Your task to perform on an android device: Open the calendar app, open the side menu, and click the "Day" option Image 0: 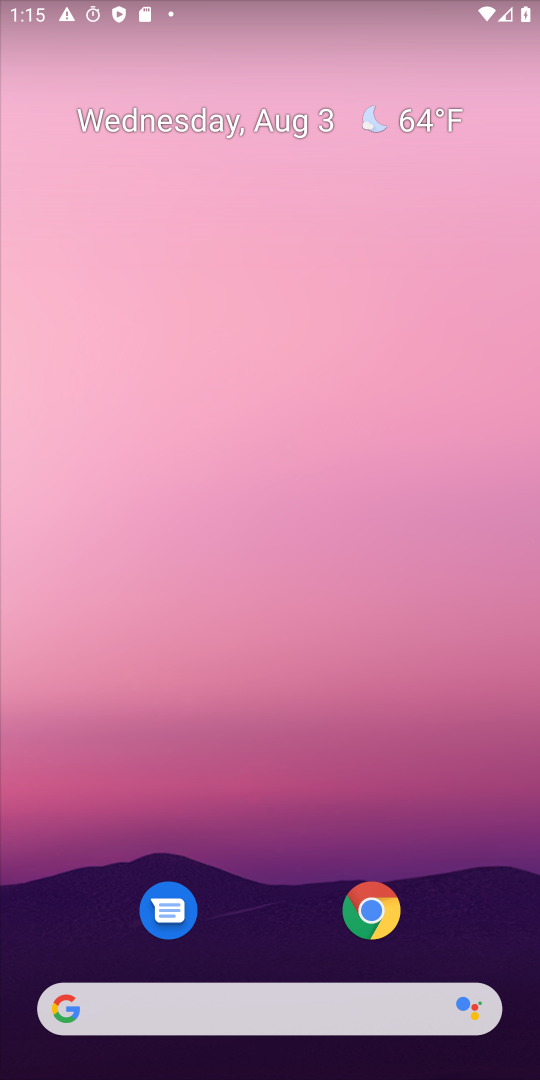
Step 0: drag from (316, 481) to (370, 5)
Your task to perform on an android device: Open the calendar app, open the side menu, and click the "Day" option Image 1: 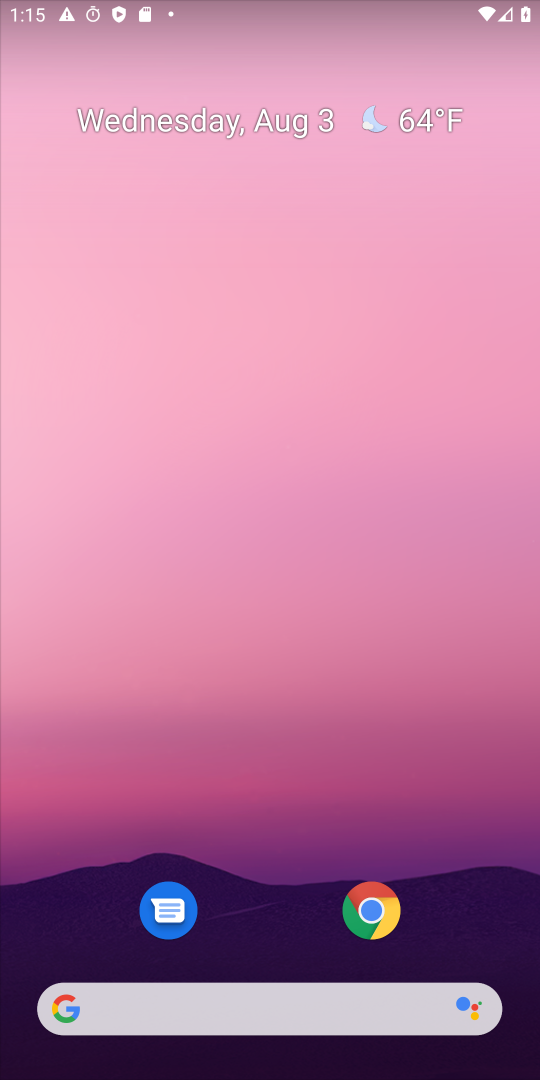
Step 1: drag from (251, 1020) to (331, 59)
Your task to perform on an android device: Open the calendar app, open the side menu, and click the "Day" option Image 2: 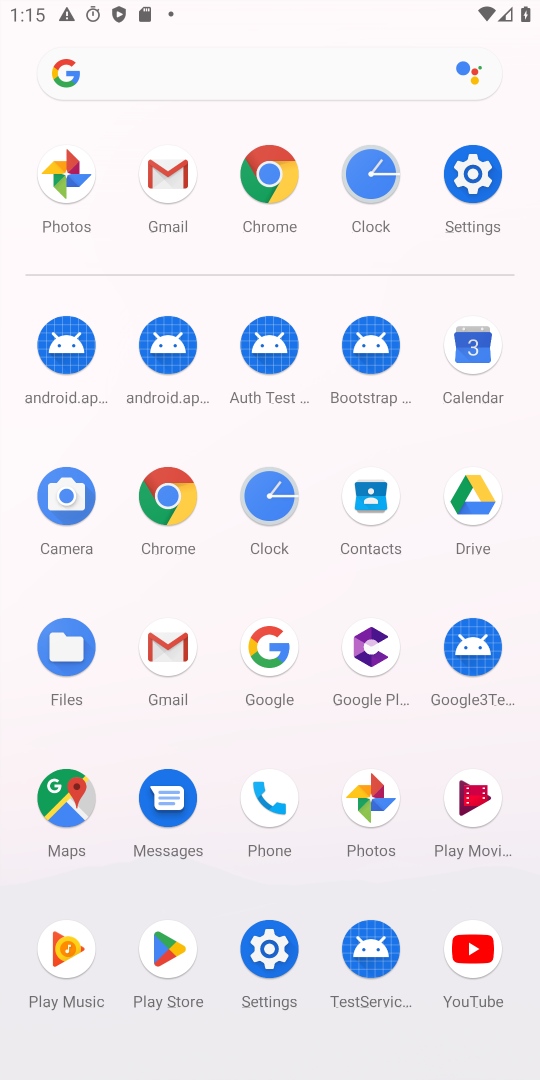
Step 2: click (468, 342)
Your task to perform on an android device: Open the calendar app, open the side menu, and click the "Day" option Image 3: 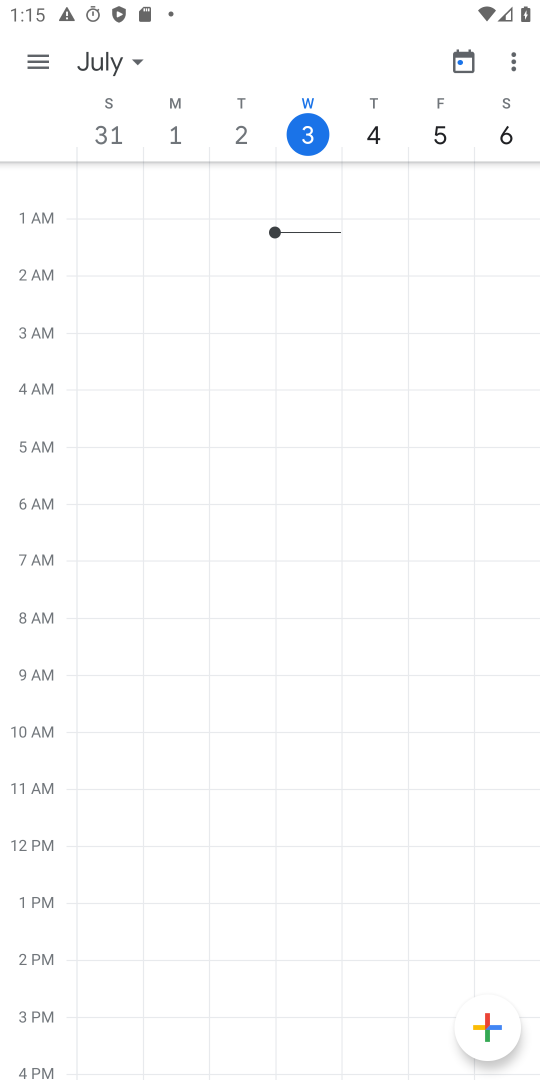
Step 3: click (30, 62)
Your task to perform on an android device: Open the calendar app, open the side menu, and click the "Day" option Image 4: 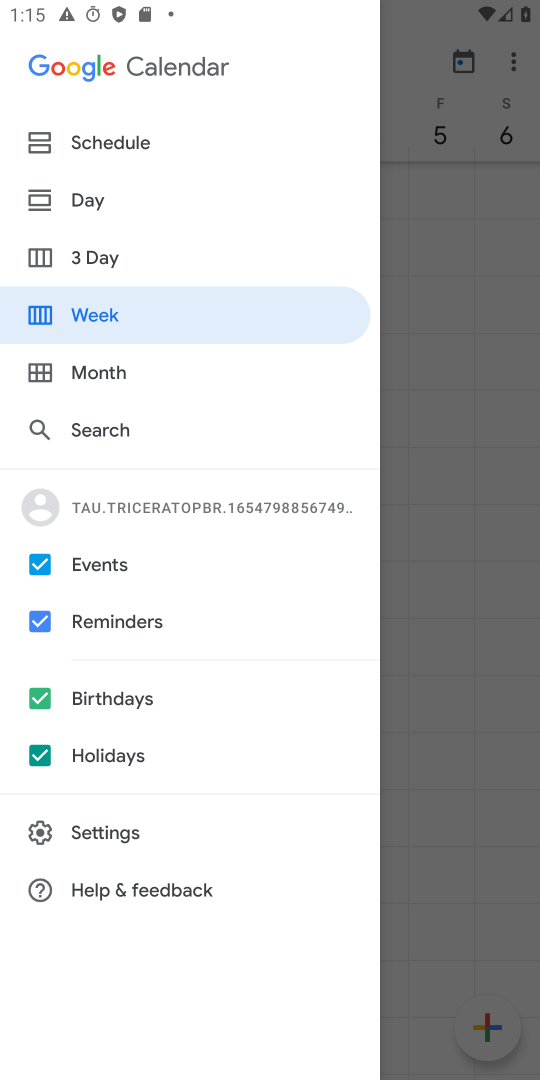
Step 4: click (117, 198)
Your task to perform on an android device: Open the calendar app, open the side menu, and click the "Day" option Image 5: 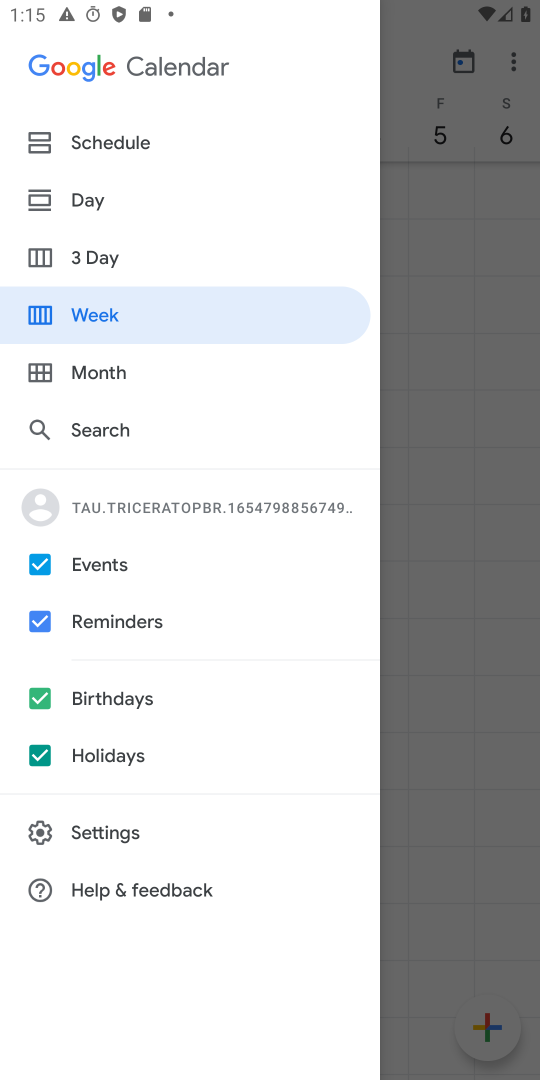
Step 5: click (118, 195)
Your task to perform on an android device: Open the calendar app, open the side menu, and click the "Day" option Image 6: 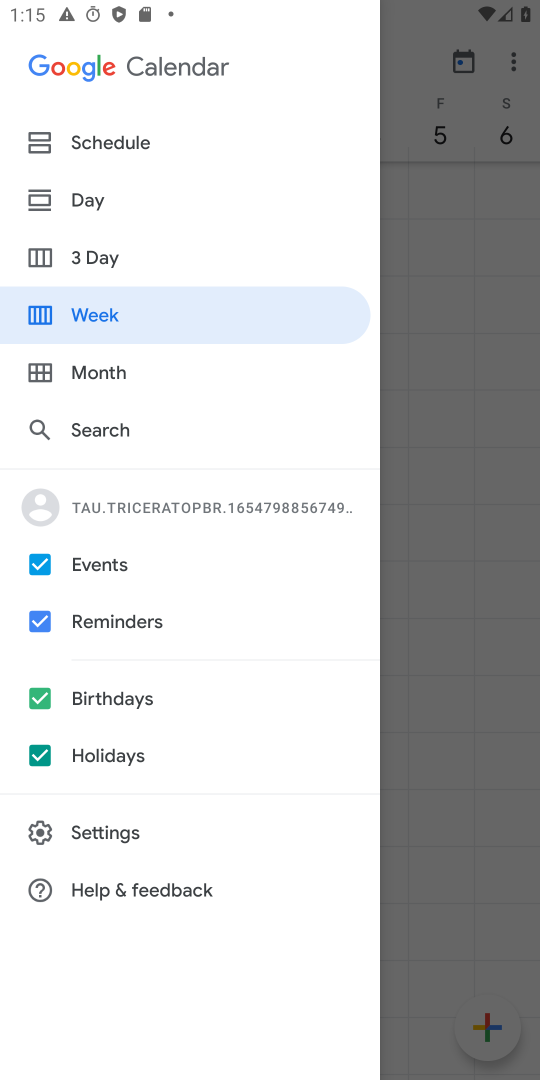
Step 6: click (116, 196)
Your task to perform on an android device: Open the calendar app, open the side menu, and click the "Day" option Image 7: 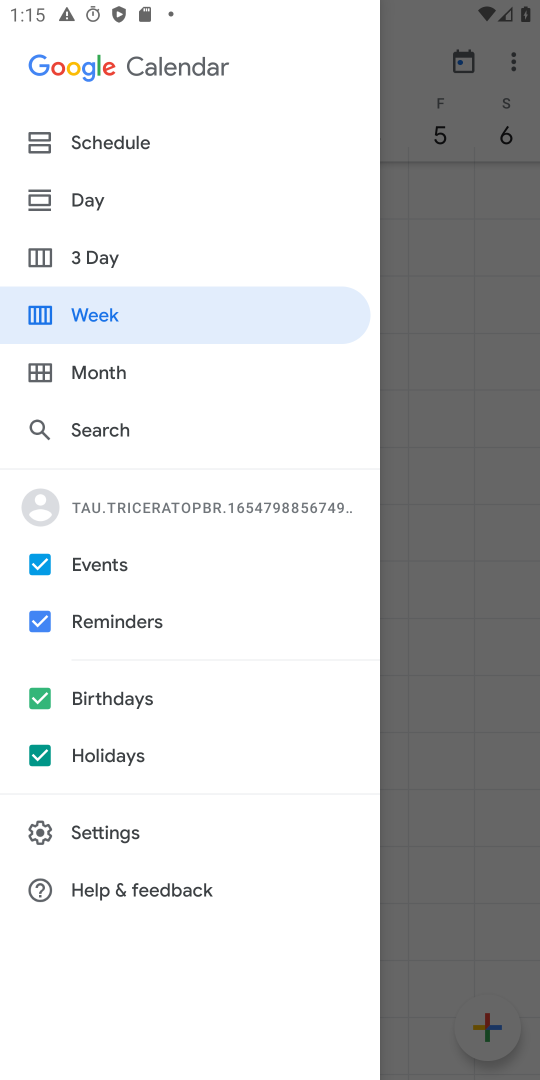
Step 7: click (116, 196)
Your task to perform on an android device: Open the calendar app, open the side menu, and click the "Day" option Image 8: 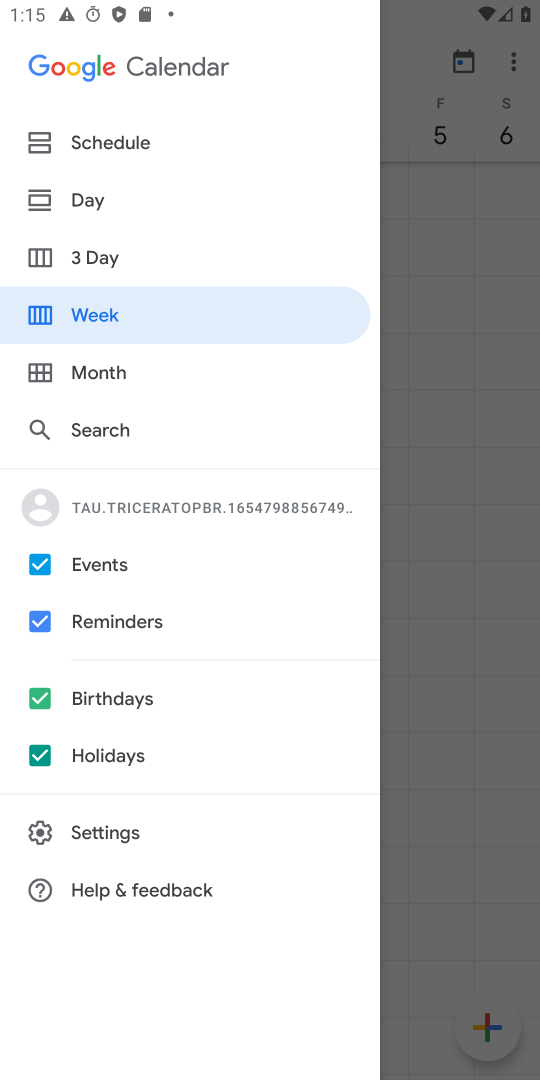
Step 8: click (98, 206)
Your task to perform on an android device: Open the calendar app, open the side menu, and click the "Day" option Image 9: 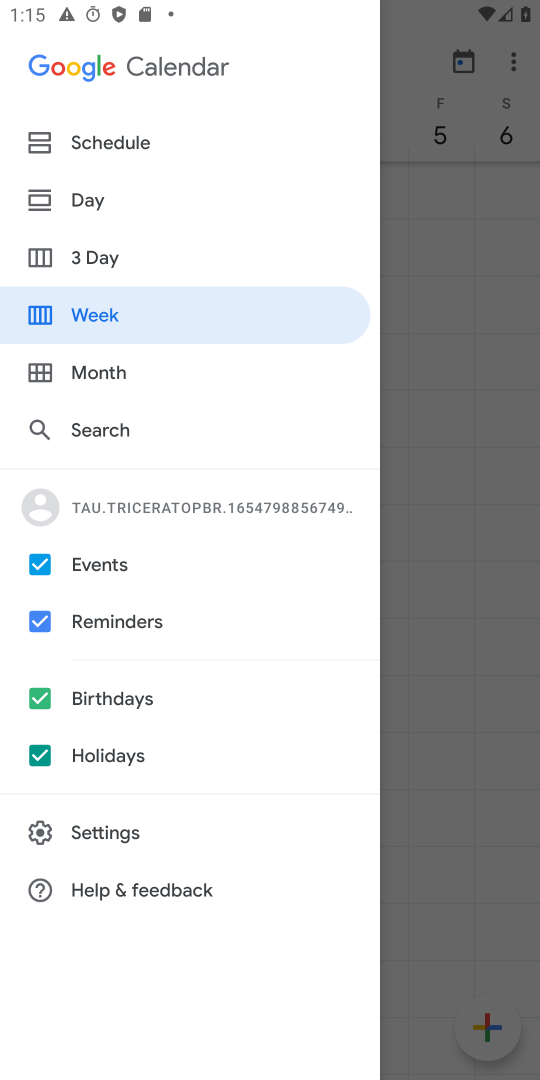
Step 9: click (101, 206)
Your task to perform on an android device: Open the calendar app, open the side menu, and click the "Day" option Image 10: 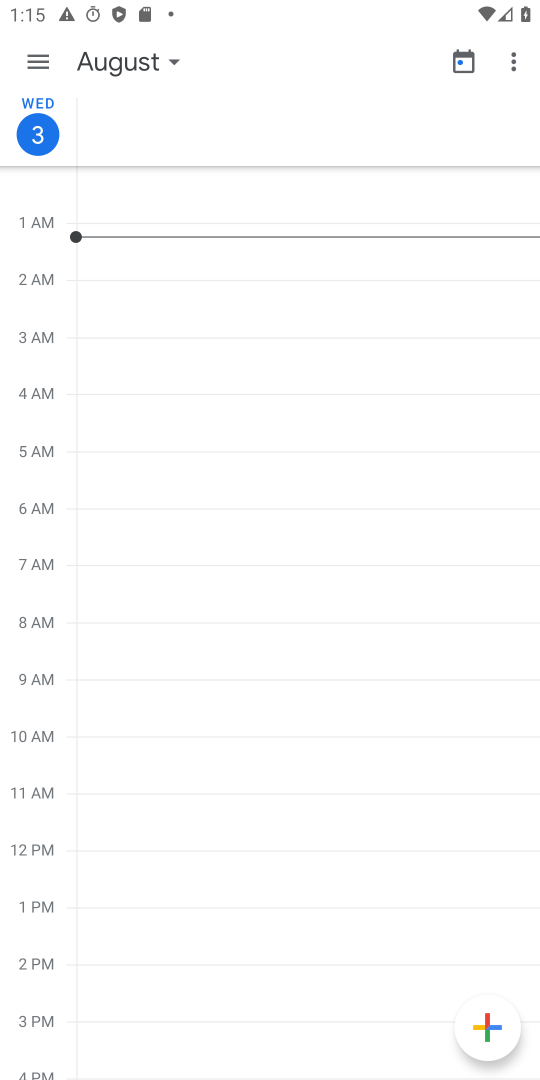
Step 10: task complete